Your task to perform on an android device: Toggle the flashlight Image 0: 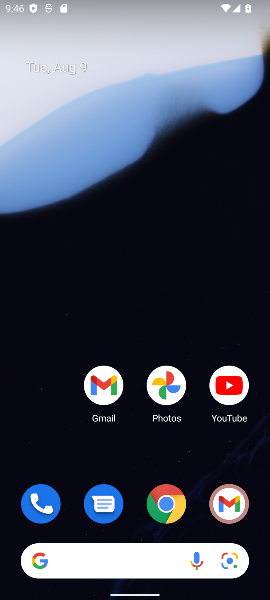
Step 0: drag from (258, 557) to (209, 93)
Your task to perform on an android device: Toggle the flashlight Image 1: 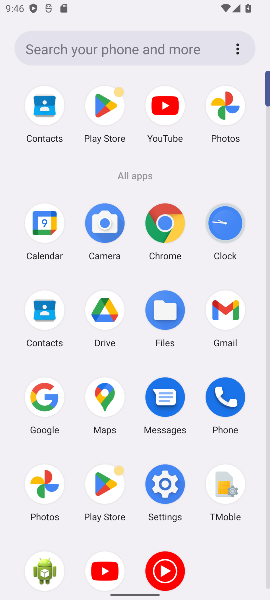
Step 1: click (158, 490)
Your task to perform on an android device: Toggle the flashlight Image 2: 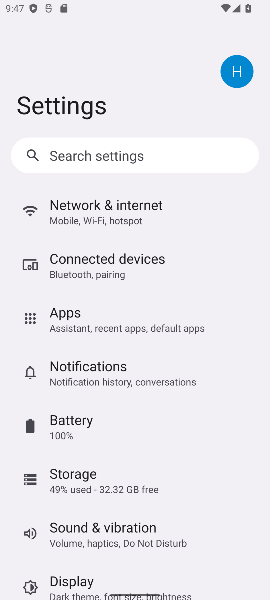
Step 2: drag from (224, 519) to (218, 240)
Your task to perform on an android device: Toggle the flashlight Image 3: 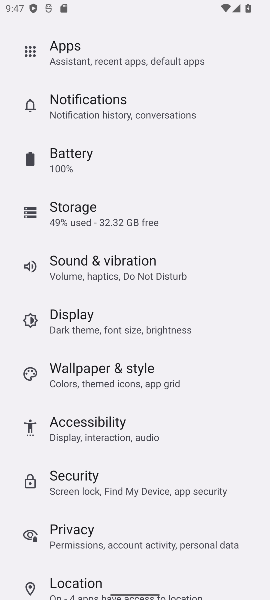
Step 3: click (87, 308)
Your task to perform on an android device: Toggle the flashlight Image 4: 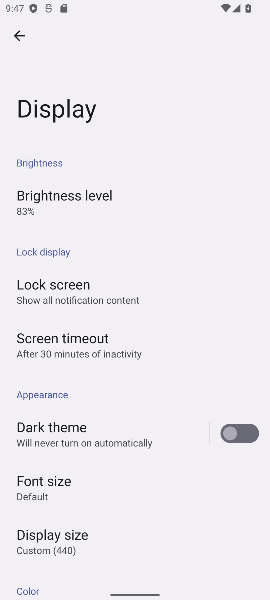
Step 4: task complete